Your task to perform on an android device: check google app version Image 0: 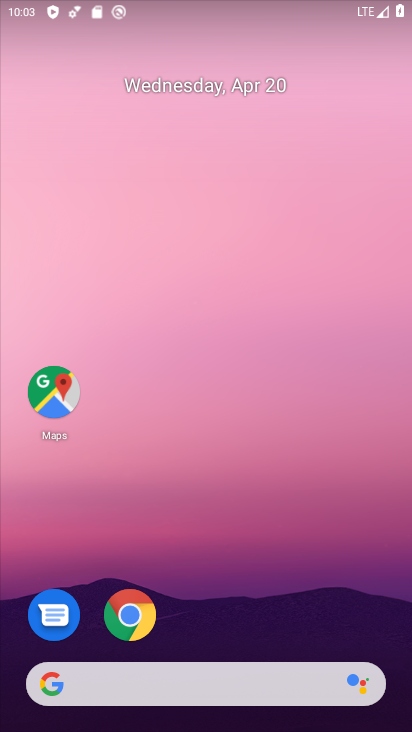
Step 0: click (131, 610)
Your task to perform on an android device: check google app version Image 1: 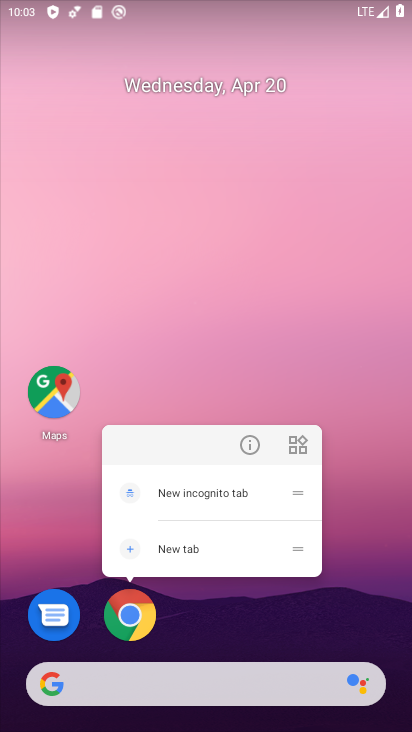
Step 1: click (251, 446)
Your task to perform on an android device: check google app version Image 2: 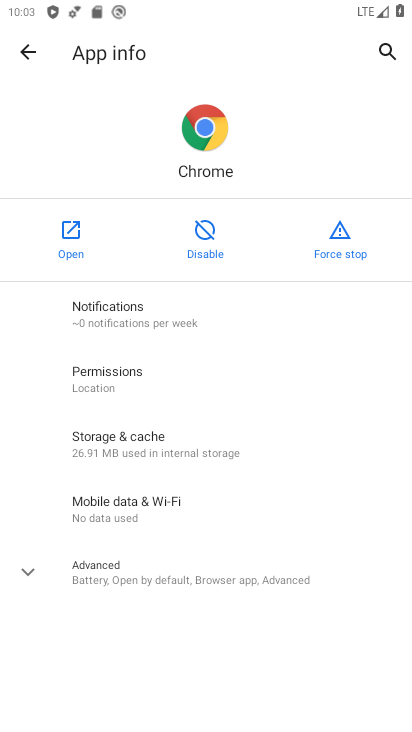
Step 2: click (243, 576)
Your task to perform on an android device: check google app version Image 3: 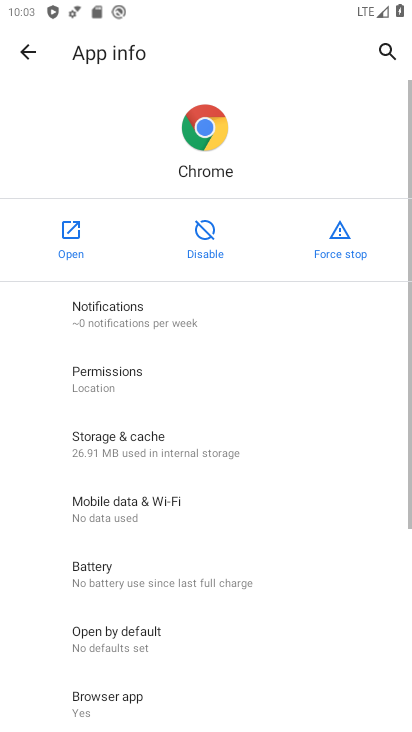
Step 3: task complete